Your task to perform on an android device: Go to network settings Image 0: 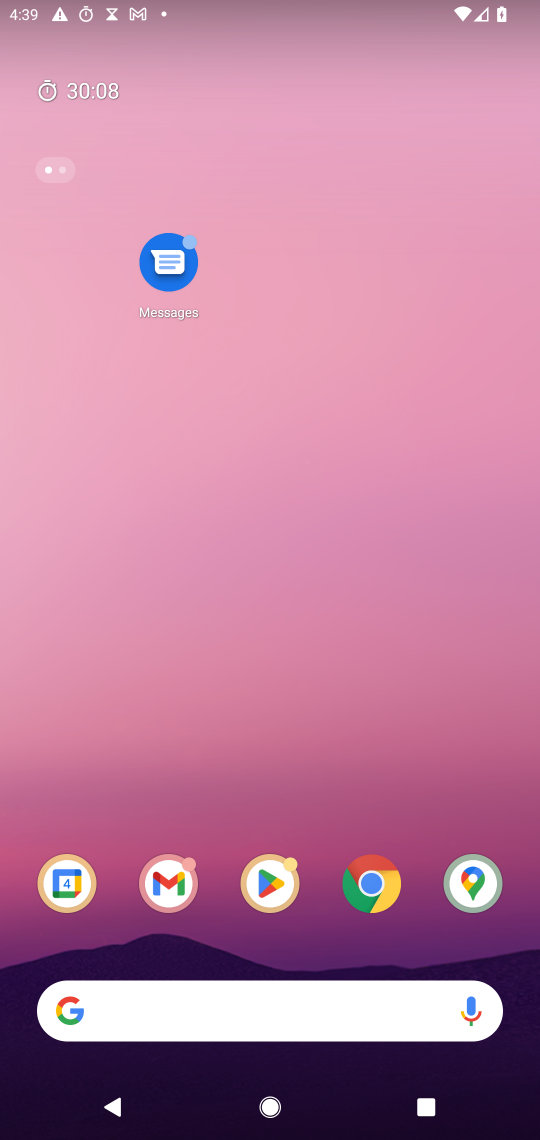
Step 0: drag from (316, 959) to (316, 20)
Your task to perform on an android device: Go to network settings Image 1: 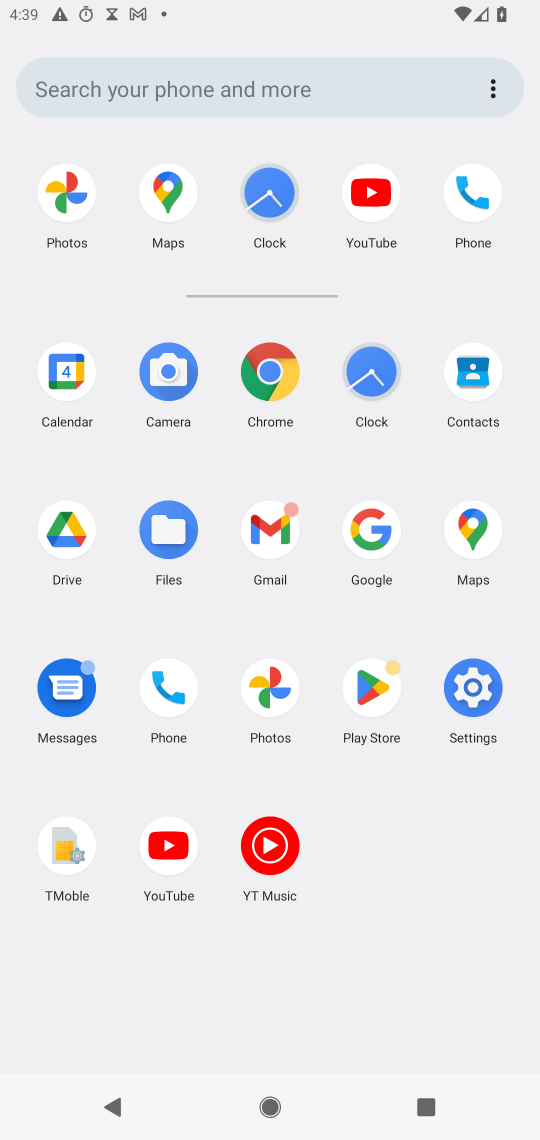
Step 1: click (472, 693)
Your task to perform on an android device: Go to network settings Image 2: 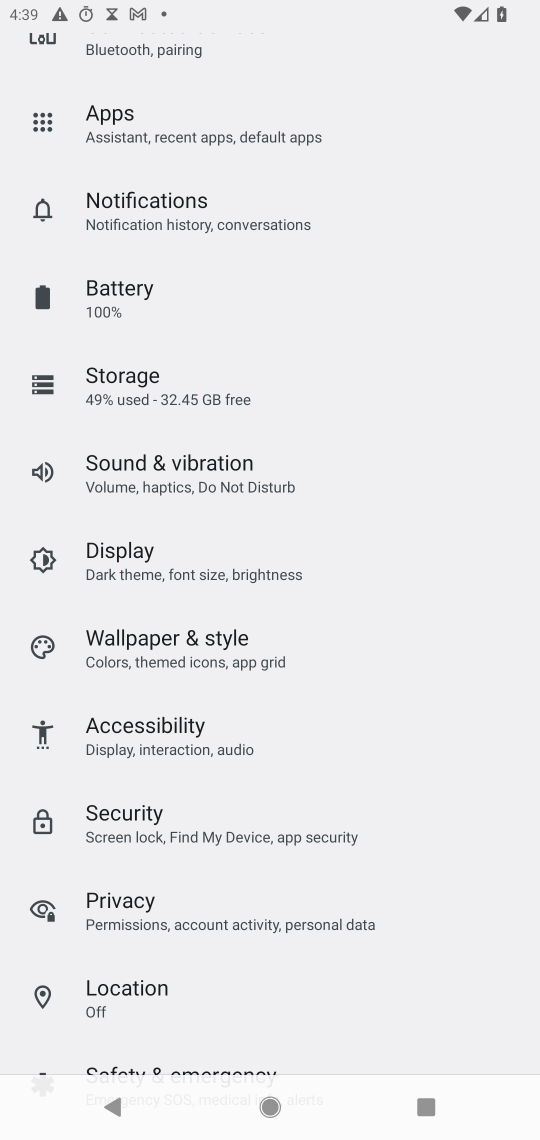
Step 2: drag from (283, 91) to (339, 987)
Your task to perform on an android device: Go to network settings Image 3: 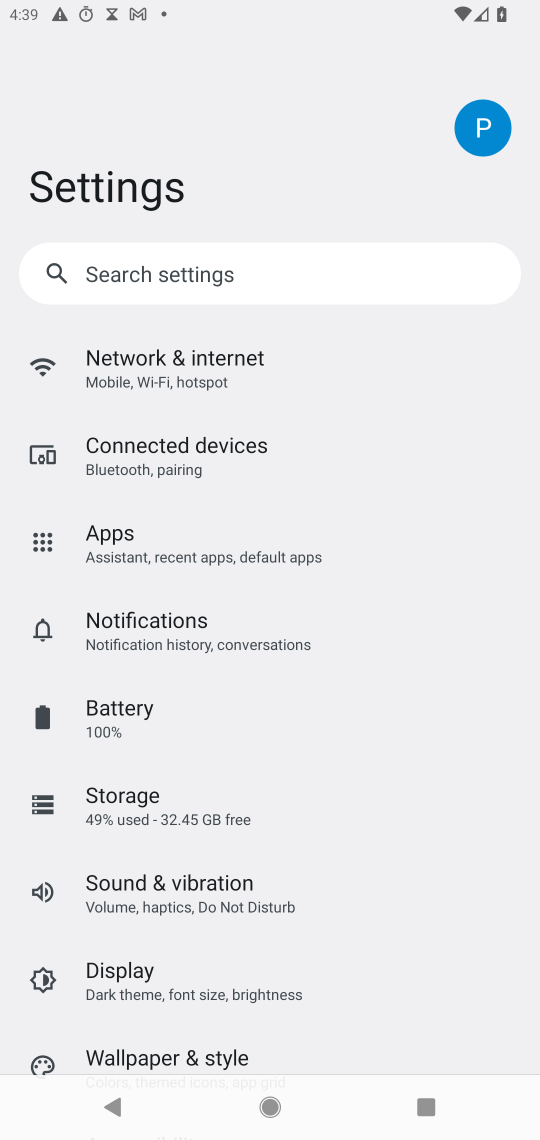
Step 3: click (159, 369)
Your task to perform on an android device: Go to network settings Image 4: 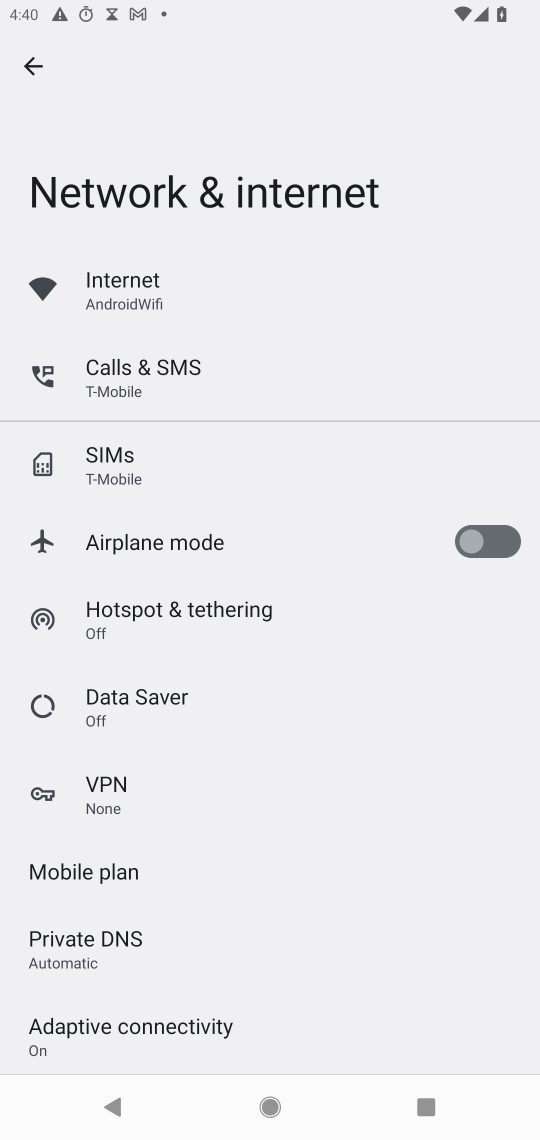
Step 4: click (113, 290)
Your task to perform on an android device: Go to network settings Image 5: 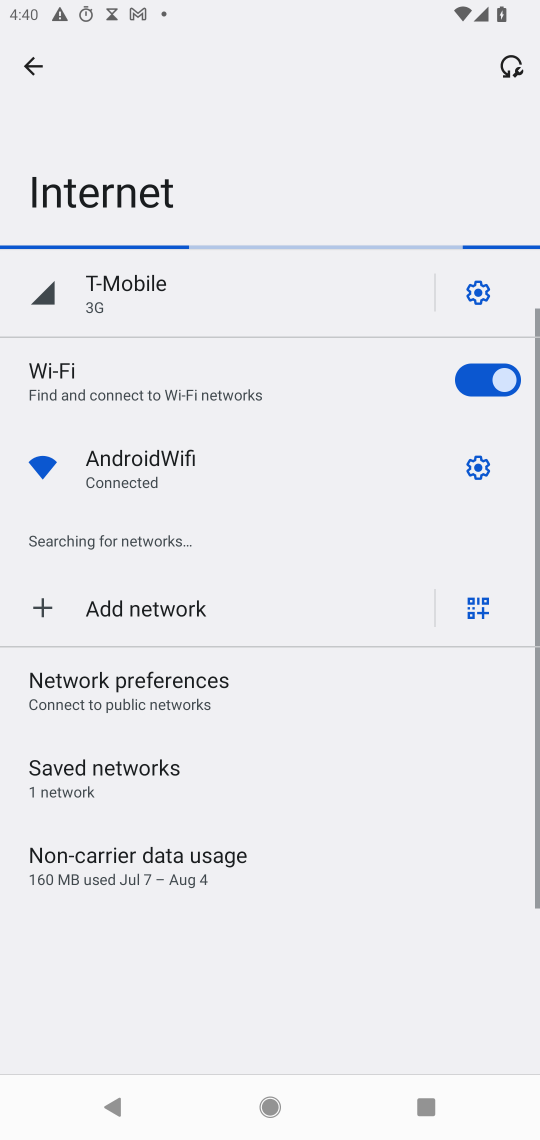
Step 5: click (102, 694)
Your task to perform on an android device: Go to network settings Image 6: 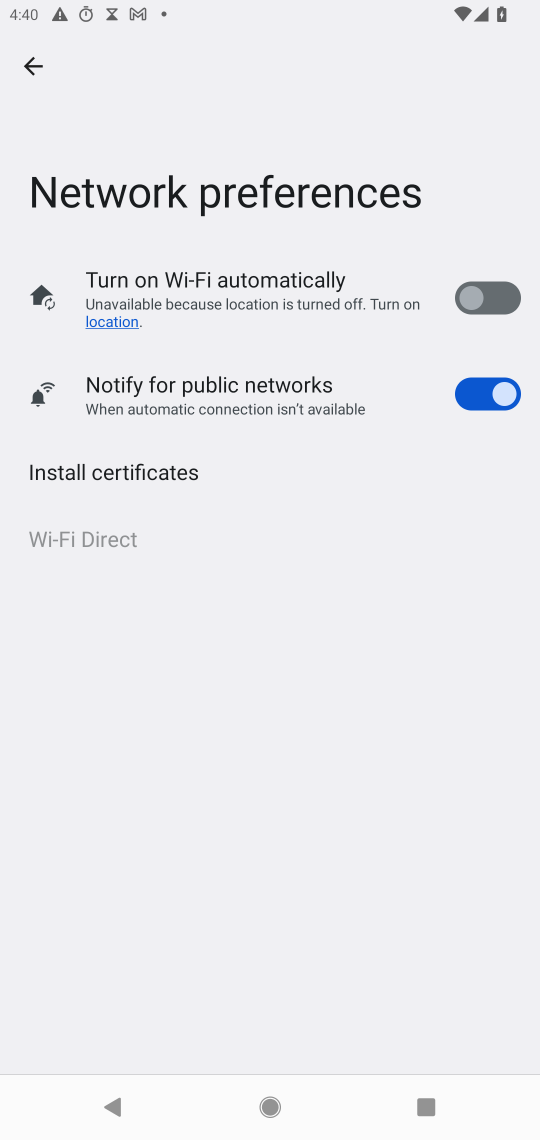
Step 6: task complete